Your task to perform on an android device: check data usage Image 0: 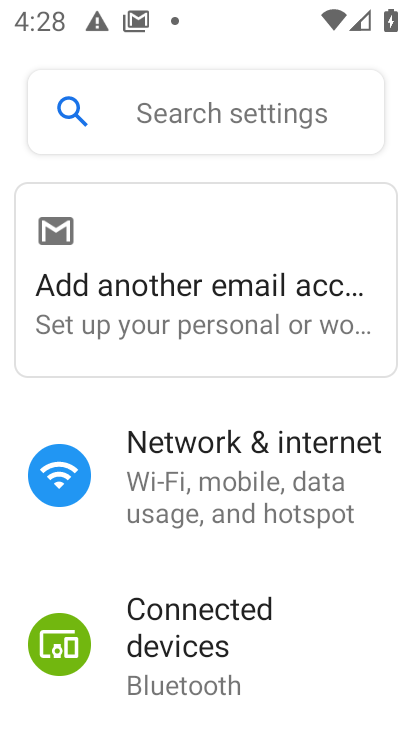
Step 0: drag from (242, 523) to (246, 425)
Your task to perform on an android device: check data usage Image 1: 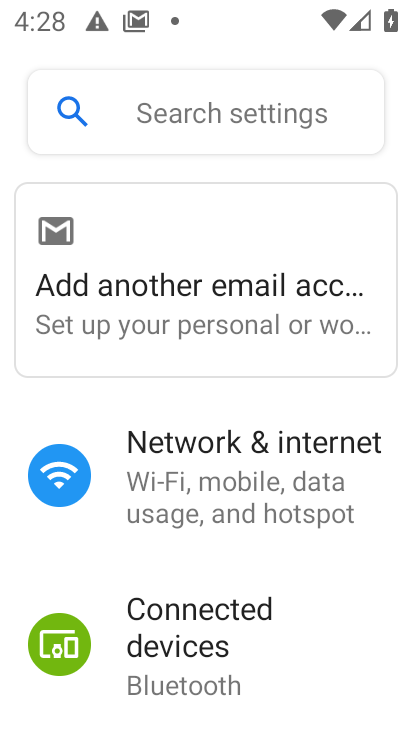
Step 1: click (212, 480)
Your task to perform on an android device: check data usage Image 2: 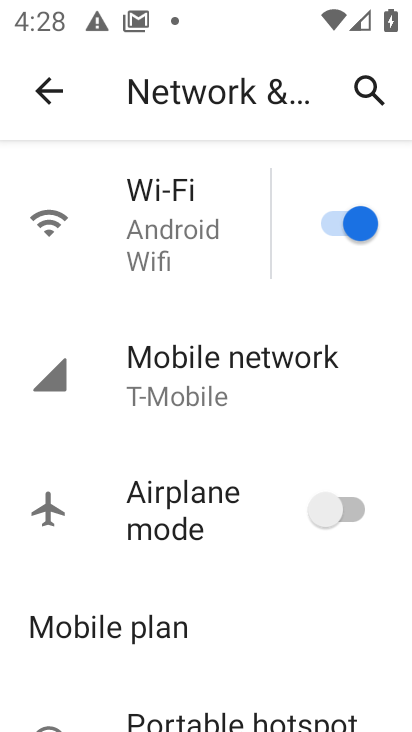
Step 2: click (204, 384)
Your task to perform on an android device: check data usage Image 3: 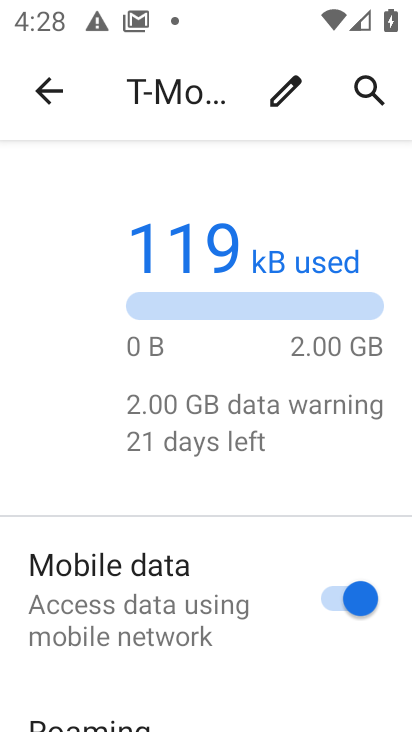
Step 3: click (231, 61)
Your task to perform on an android device: check data usage Image 4: 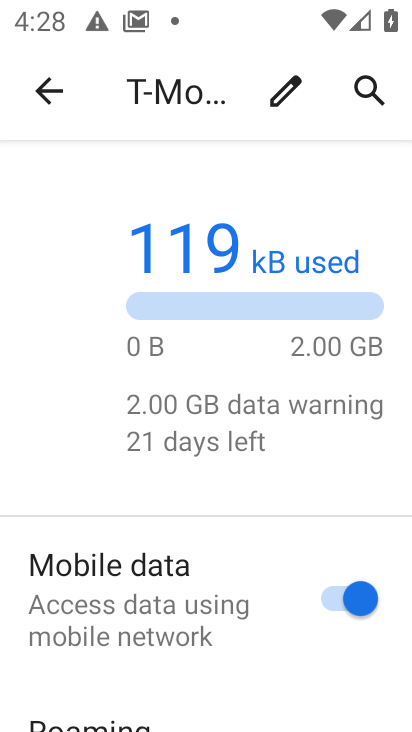
Step 4: drag from (236, 600) to (232, 142)
Your task to perform on an android device: check data usage Image 5: 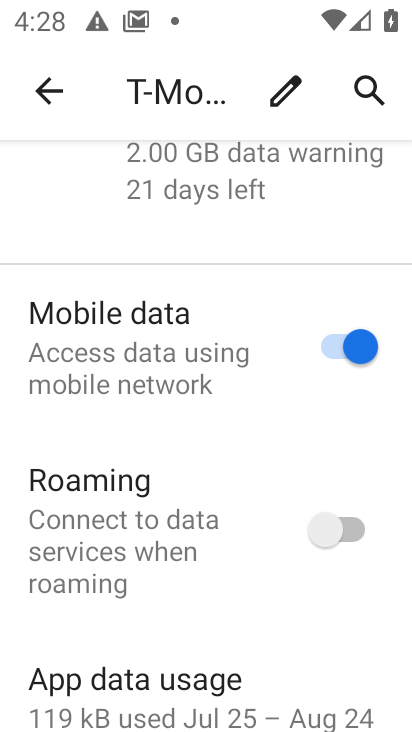
Step 5: drag from (147, 575) to (197, 267)
Your task to perform on an android device: check data usage Image 6: 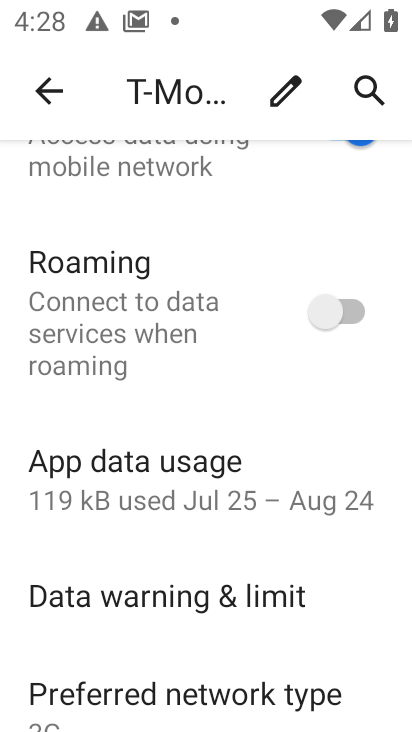
Step 6: click (150, 497)
Your task to perform on an android device: check data usage Image 7: 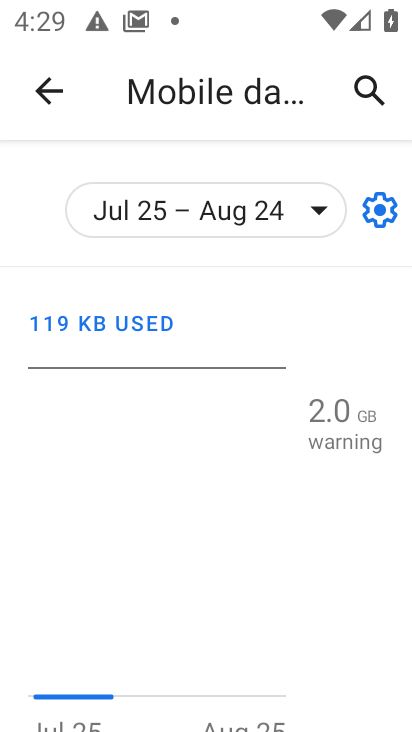
Step 7: task complete